Your task to perform on an android device: Open settings on Google Maps Image 0: 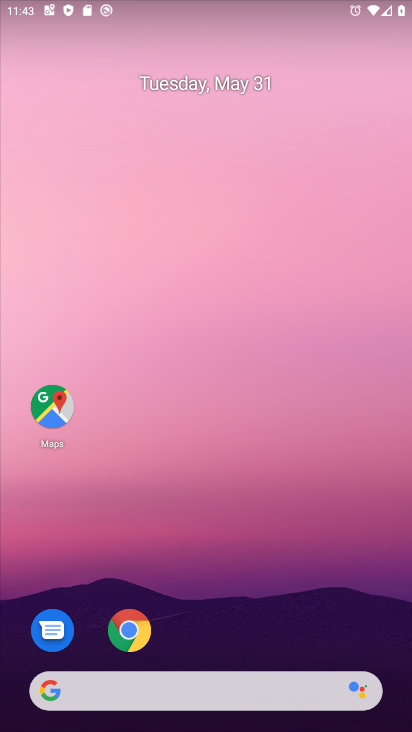
Step 0: drag from (124, 726) to (145, 184)
Your task to perform on an android device: Open settings on Google Maps Image 1: 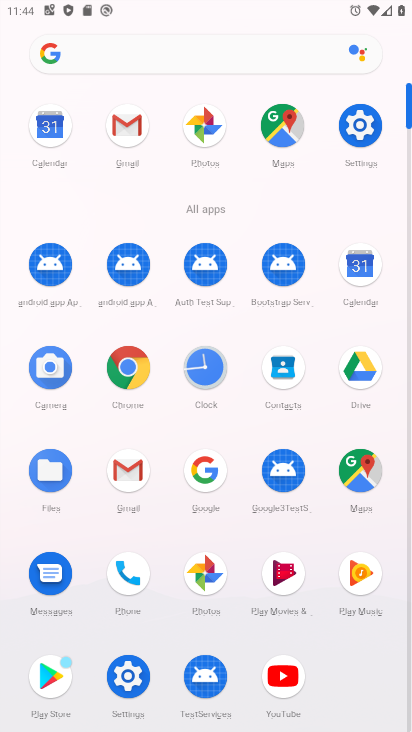
Step 1: click (271, 128)
Your task to perform on an android device: Open settings on Google Maps Image 2: 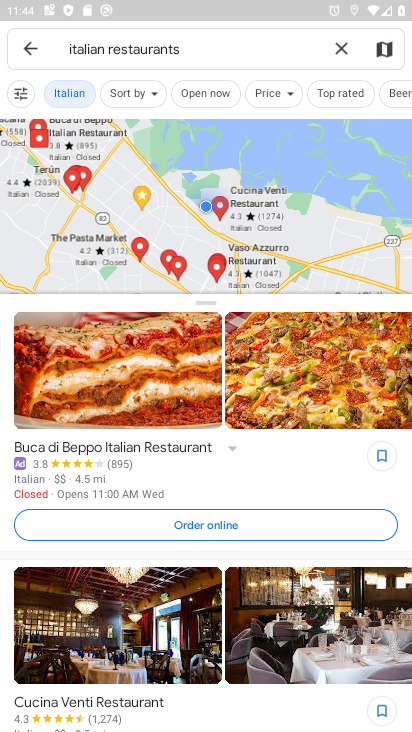
Step 2: click (342, 45)
Your task to perform on an android device: Open settings on Google Maps Image 3: 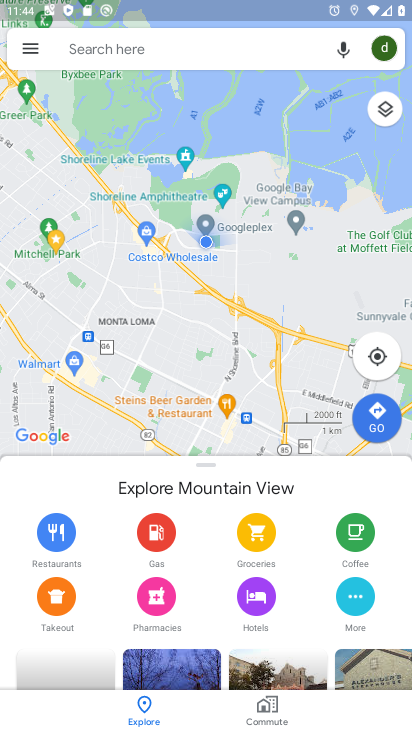
Step 3: click (28, 49)
Your task to perform on an android device: Open settings on Google Maps Image 4: 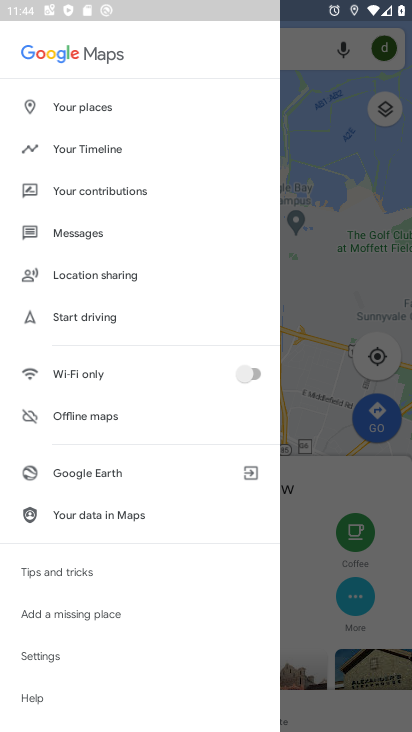
Step 4: click (49, 653)
Your task to perform on an android device: Open settings on Google Maps Image 5: 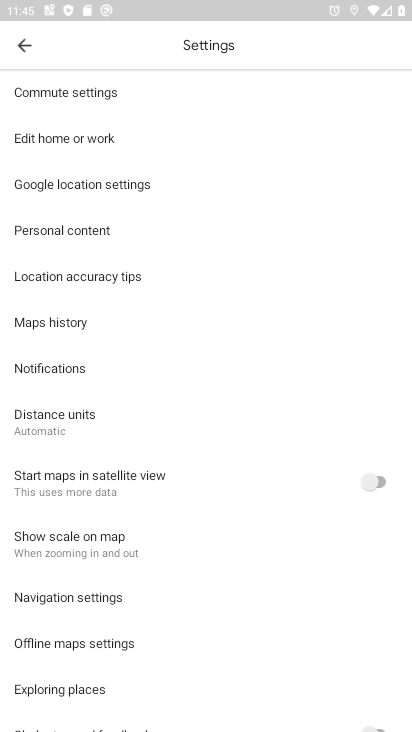
Step 5: task complete